Your task to perform on an android device: Go to accessibility settings Image 0: 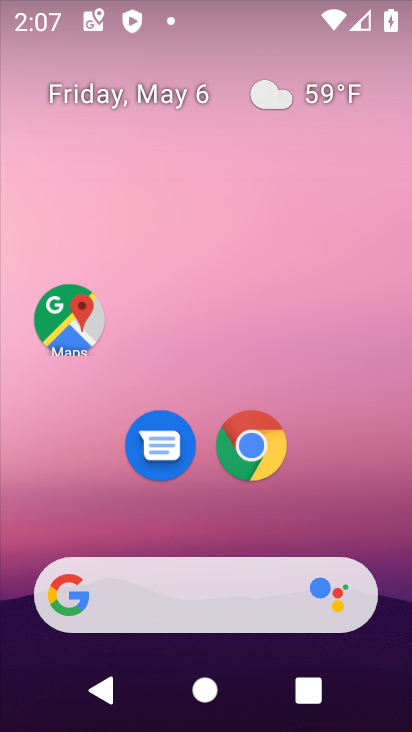
Step 0: drag from (349, 484) to (349, 212)
Your task to perform on an android device: Go to accessibility settings Image 1: 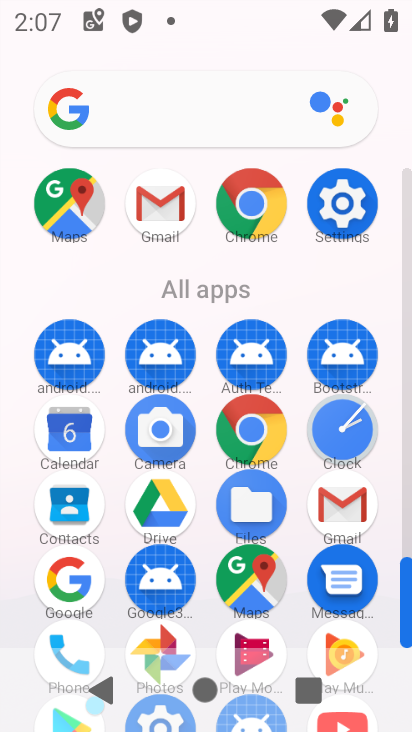
Step 1: click (335, 323)
Your task to perform on an android device: Go to accessibility settings Image 2: 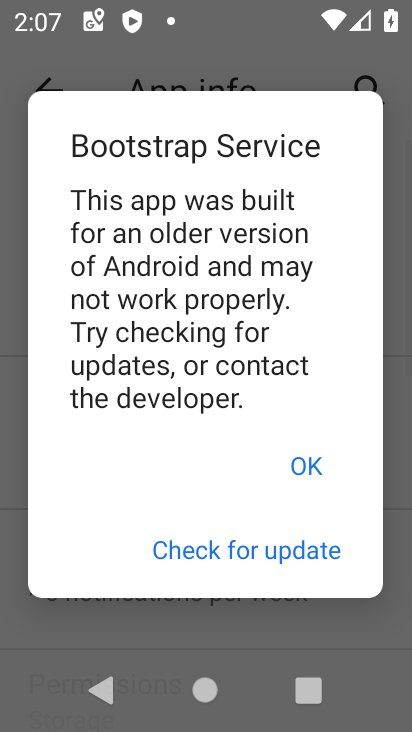
Step 2: click (306, 473)
Your task to perform on an android device: Go to accessibility settings Image 3: 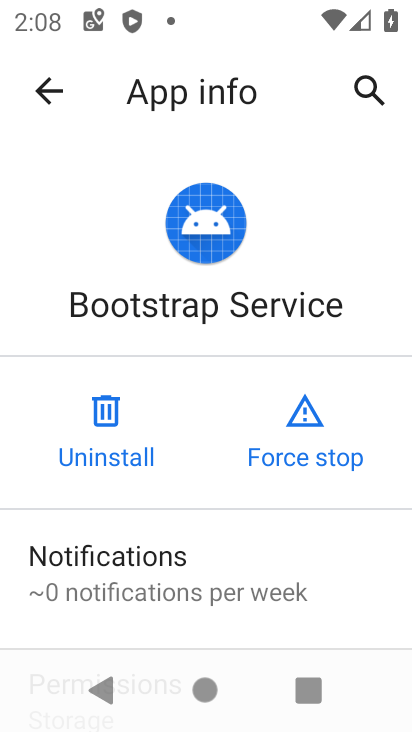
Step 3: click (38, 89)
Your task to perform on an android device: Go to accessibility settings Image 4: 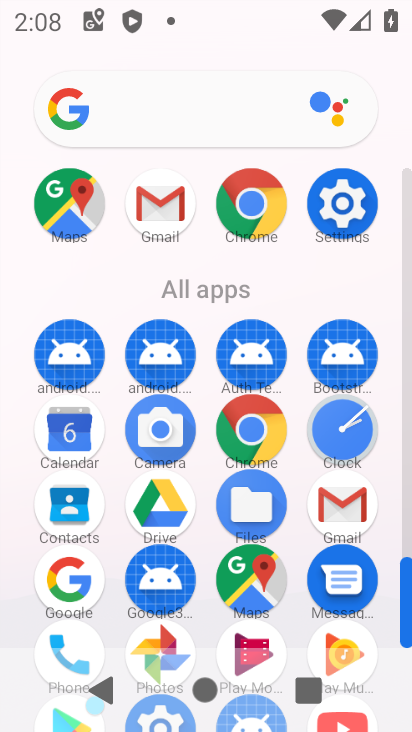
Step 4: click (347, 218)
Your task to perform on an android device: Go to accessibility settings Image 5: 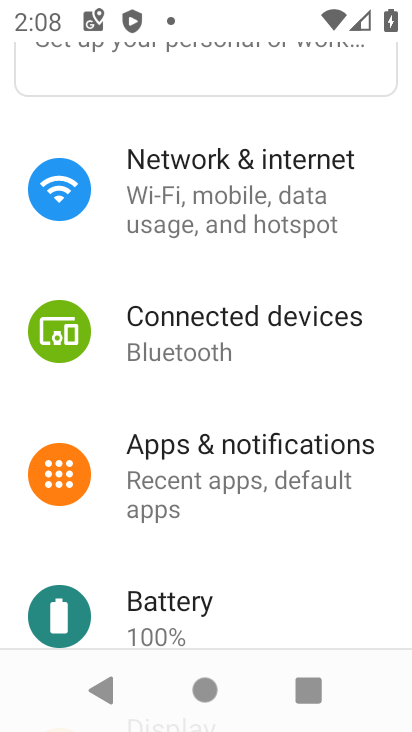
Step 5: drag from (188, 476) to (158, 226)
Your task to perform on an android device: Go to accessibility settings Image 6: 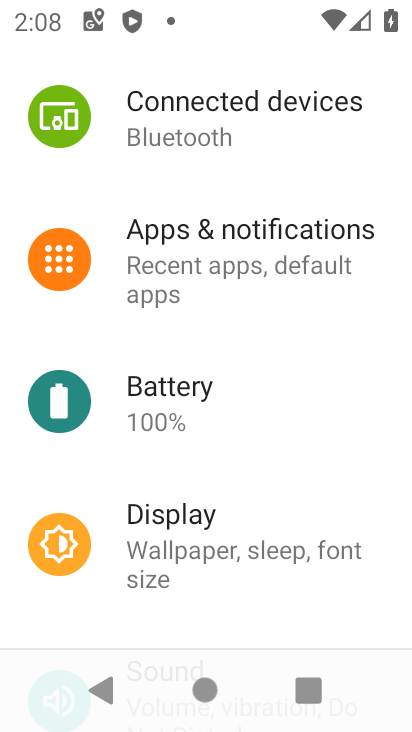
Step 6: drag from (213, 497) to (227, 98)
Your task to perform on an android device: Go to accessibility settings Image 7: 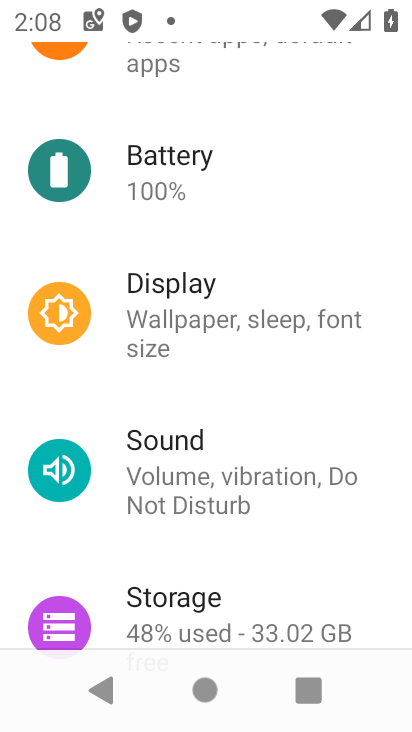
Step 7: click (195, 153)
Your task to perform on an android device: Go to accessibility settings Image 8: 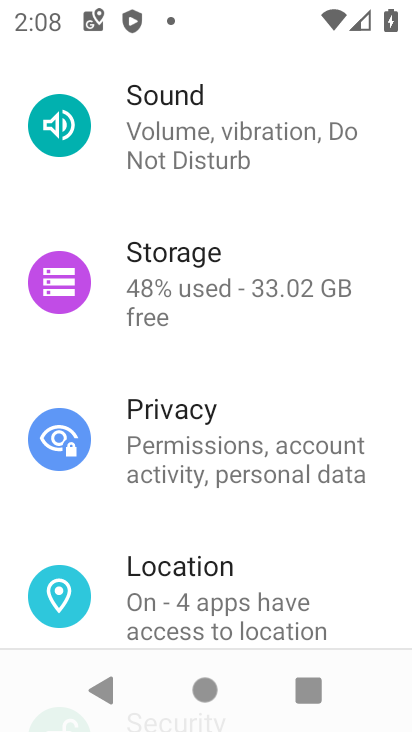
Step 8: drag from (195, 544) to (188, 192)
Your task to perform on an android device: Go to accessibility settings Image 9: 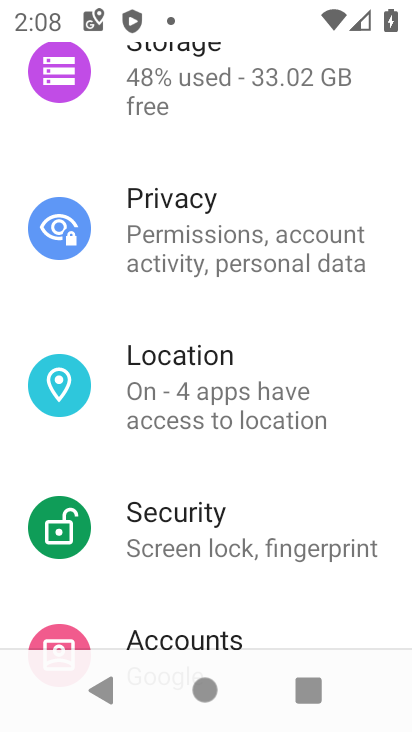
Step 9: drag from (188, 573) to (220, 155)
Your task to perform on an android device: Go to accessibility settings Image 10: 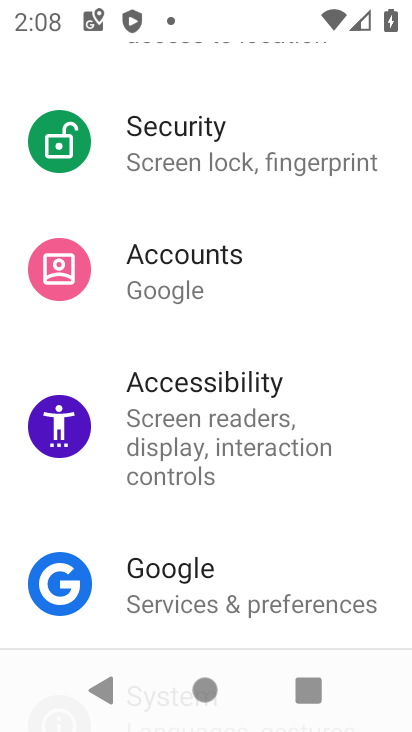
Step 10: click (182, 411)
Your task to perform on an android device: Go to accessibility settings Image 11: 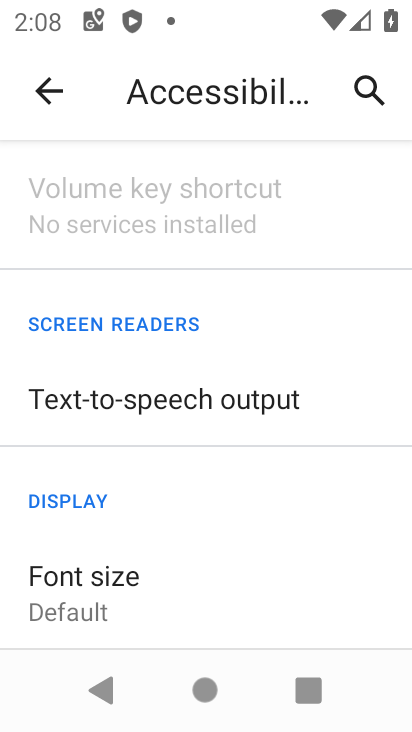
Step 11: task complete